Your task to perform on an android device: check the backup settings in the google photos Image 0: 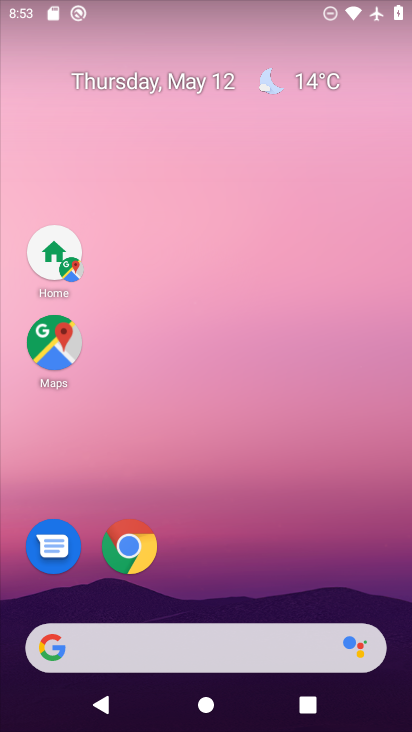
Step 0: drag from (165, 643) to (308, 71)
Your task to perform on an android device: check the backup settings in the google photos Image 1: 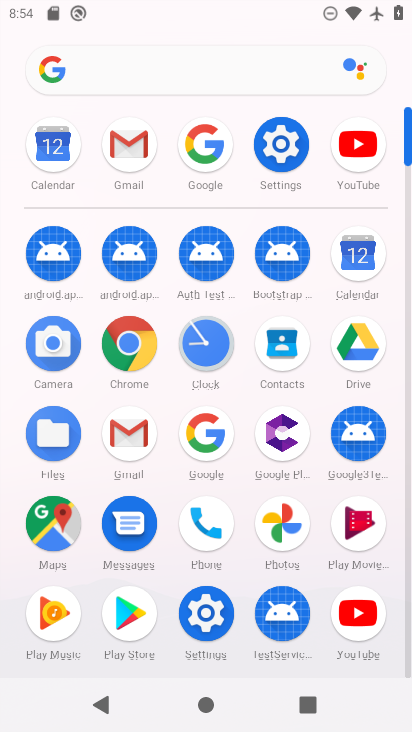
Step 1: click (274, 525)
Your task to perform on an android device: check the backup settings in the google photos Image 2: 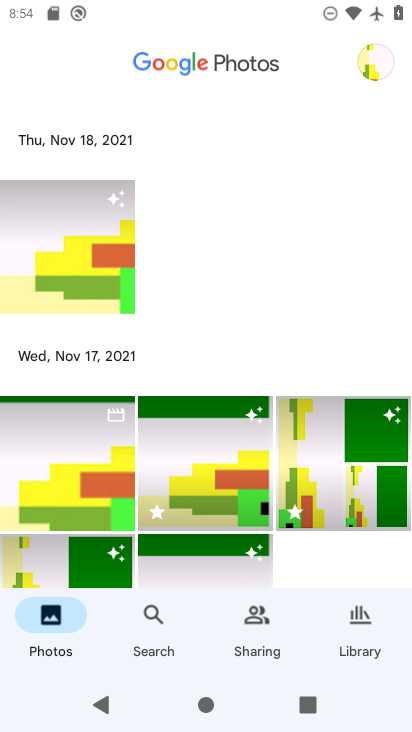
Step 2: click (370, 56)
Your task to perform on an android device: check the backup settings in the google photos Image 3: 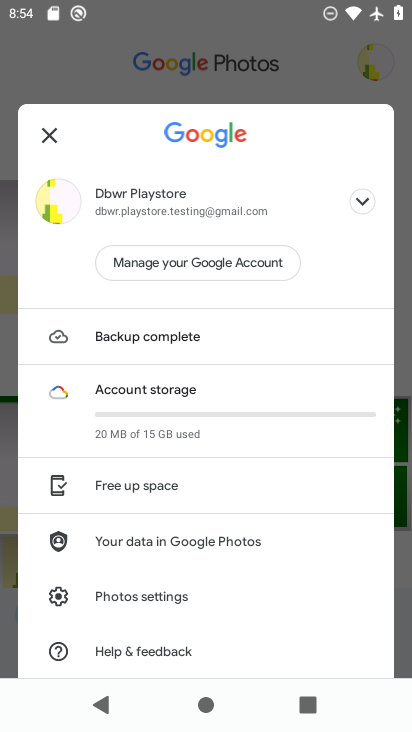
Step 3: click (161, 596)
Your task to perform on an android device: check the backup settings in the google photos Image 4: 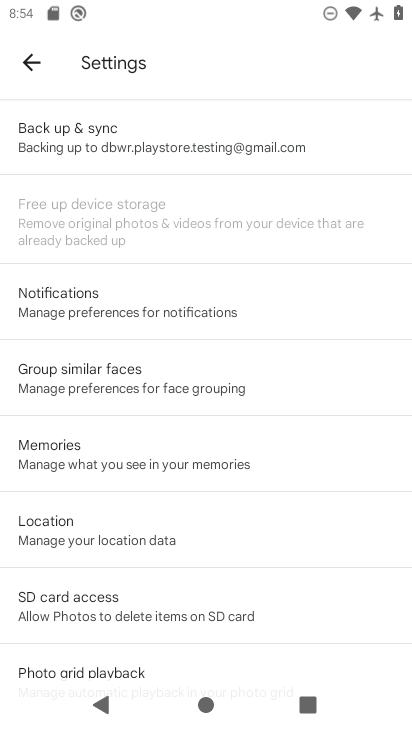
Step 4: click (196, 157)
Your task to perform on an android device: check the backup settings in the google photos Image 5: 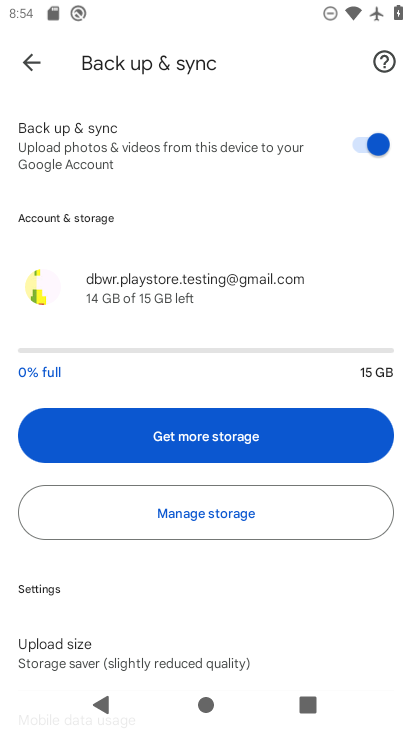
Step 5: task complete